Your task to perform on an android device: open a bookmark in the chrome app Image 0: 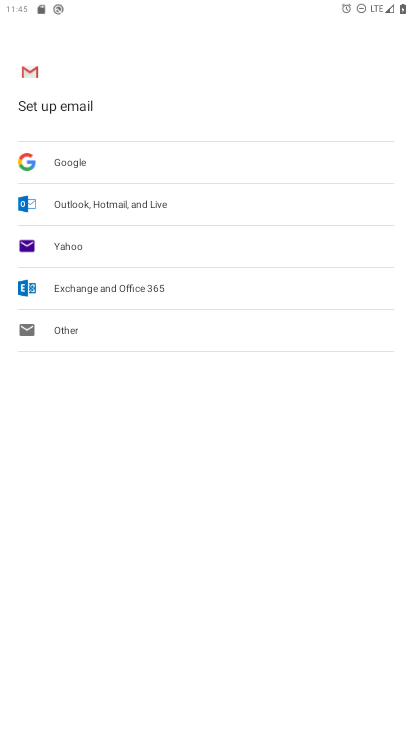
Step 0: press home button
Your task to perform on an android device: open a bookmark in the chrome app Image 1: 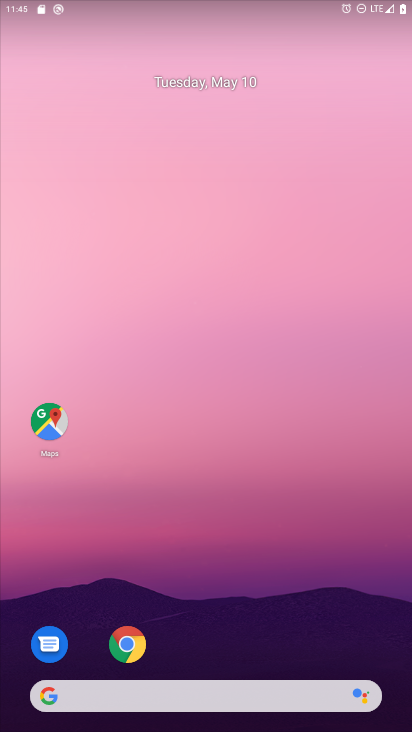
Step 1: drag from (234, 624) to (265, 303)
Your task to perform on an android device: open a bookmark in the chrome app Image 2: 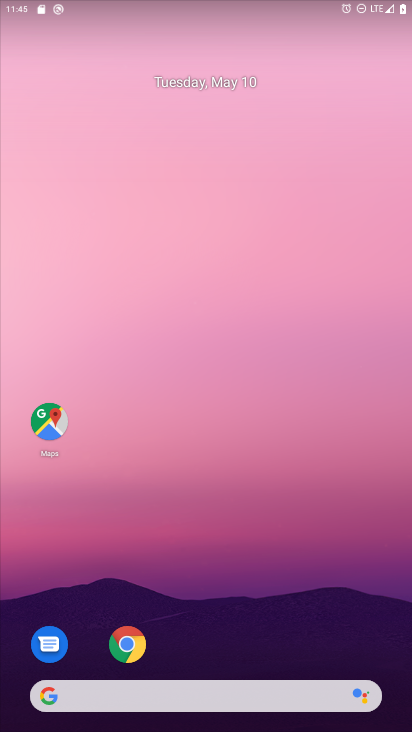
Step 2: drag from (223, 603) to (285, 198)
Your task to perform on an android device: open a bookmark in the chrome app Image 3: 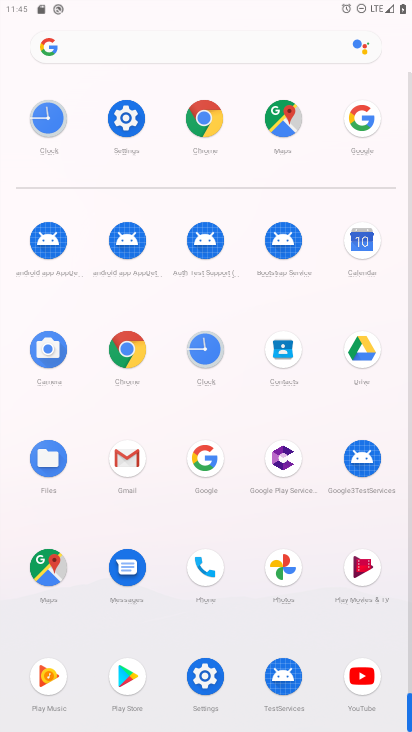
Step 3: click (204, 145)
Your task to perform on an android device: open a bookmark in the chrome app Image 4: 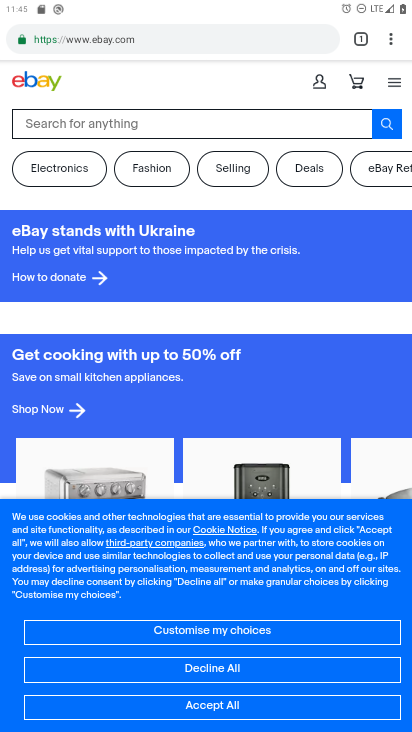
Step 4: click (394, 43)
Your task to perform on an android device: open a bookmark in the chrome app Image 5: 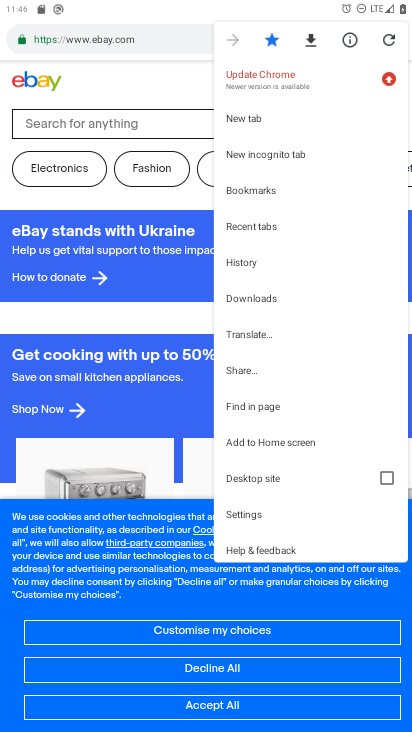
Step 5: click (280, 188)
Your task to perform on an android device: open a bookmark in the chrome app Image 6: 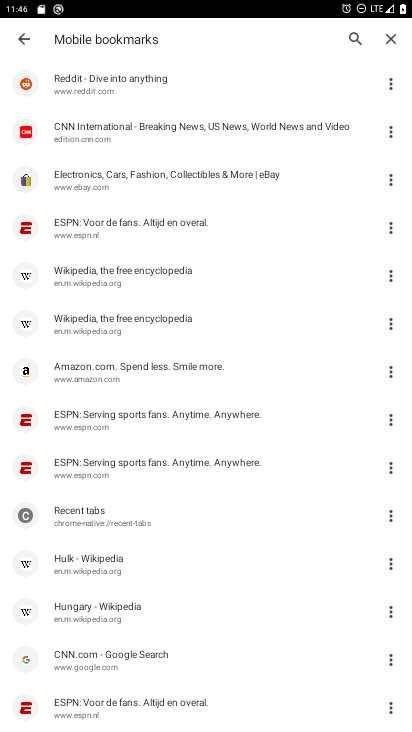
Step 6: click (112, 610)
Your task to perform on an android device: open a bookmark in the chrome app Image 7: 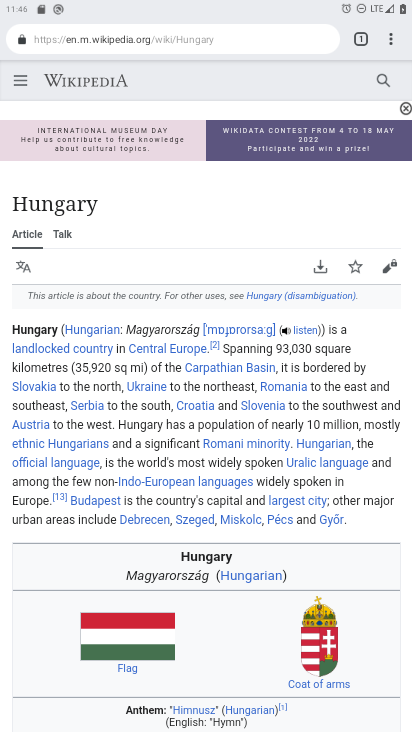
Step 7: task complete